Your task to perform on an android device: Clear the cart on newegg.com. Add logitech g933 to the cart on newegg.com Image 0: 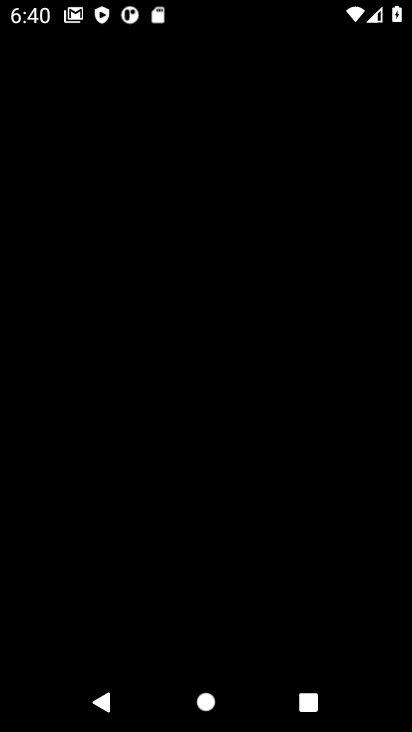
Step 0: press home button
Your task to perform on an android device: Clear the cart on newegg.com. Add logitech g933 to the cart on newegg.com Image 1: 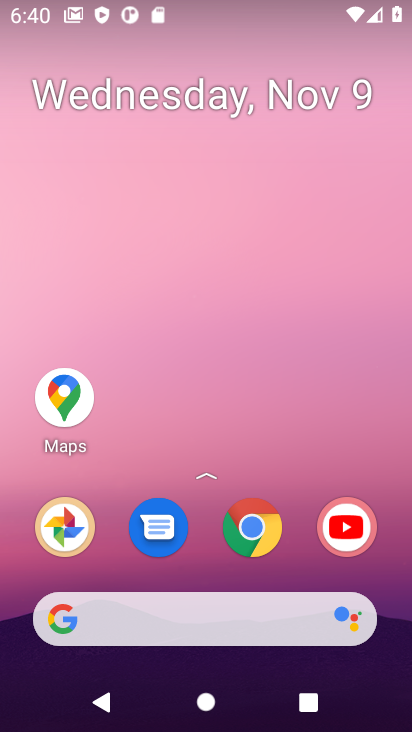
Step 1: click (260, 526)
Your task to perform on an android device: Clear the cart on newegg.com. Add logitech g933 to the cart on newegg.com Image 2: 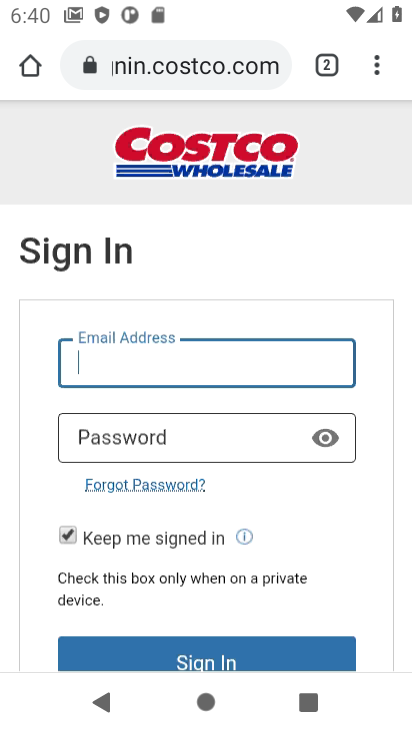
Step 2: click (211, 65)
Your task to perform on an android device: Clear the cart on newegg.com. Add logitech g933 to the cart on newegg.com Image 3: 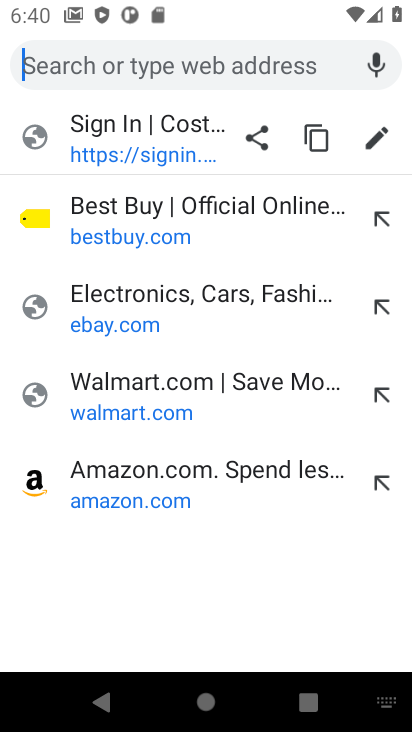
Step 3: type "newegg.com"
Your task to perform on an android device: Clear the cart on newegg.com. Add logitech g933 to the cart on newegg.com Image 4: 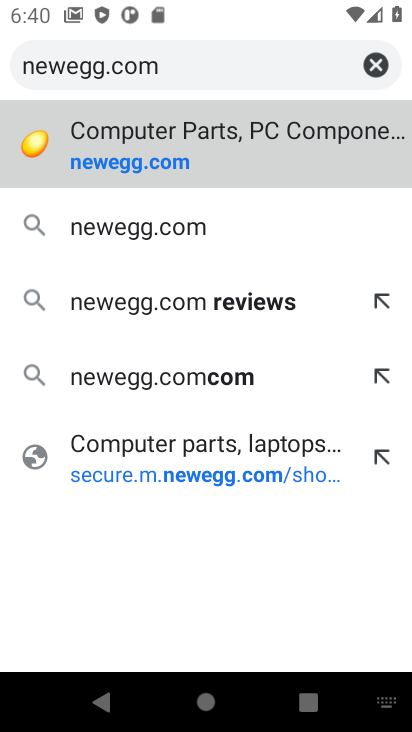
Step 4: click (181, 160)
Your task to perform on an android device: Clear the cart on newegg.com. Add logitech g933 to the cart on newegg.com Image 5: 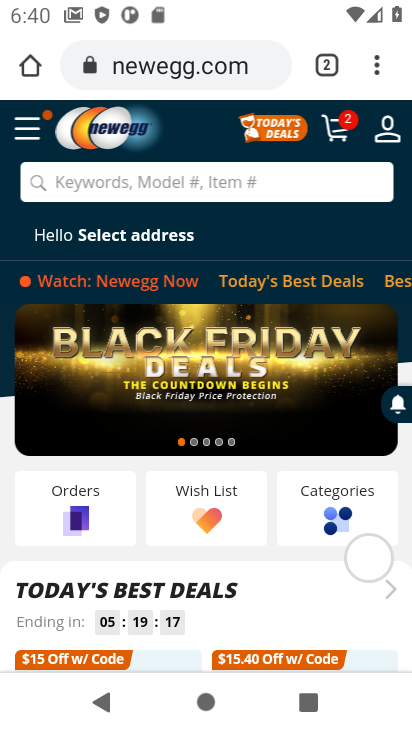
Step 5: click (348, 125)
Your task to perform on an android device: Clear the cart on newegg.com. Add logitech g933 to the cart on newegg.com Image 6: 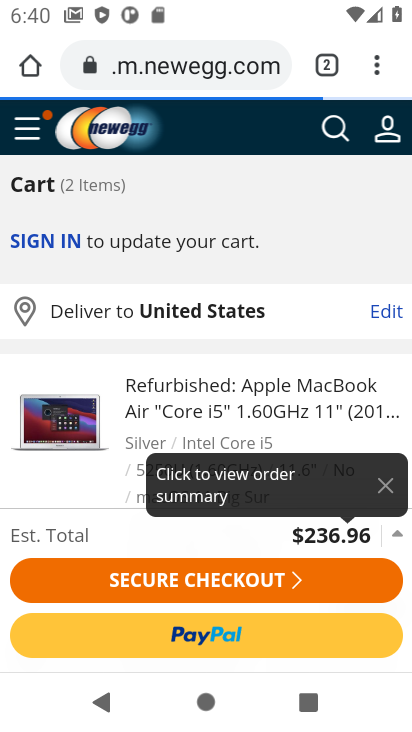
Step 6: drag from (221, 446) to (219, 292)
Your task to perform on an android device: Clear the cart on newegg.com. Add logitech g933 to the cart on newegg.com Image 7: 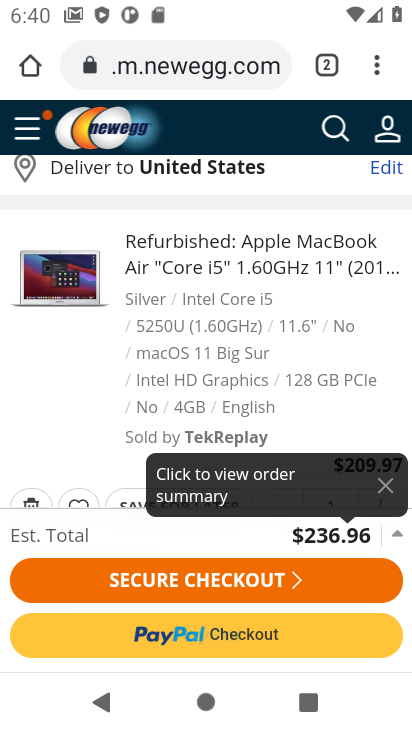
Step 7: drag from (49, 432) to (52, 309)
Your task to perform on an android device: Clear the cart on newegg.com. Add logitech g933 to the cart on newegg.com Image 8: 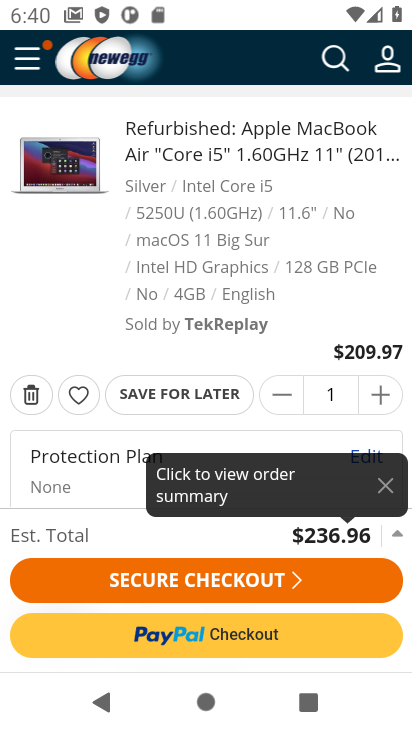
Step 8: click (25, 396)
Your task to perform on an android device: Clear the cart on newegg.com. Add logitech g933 to the cart on newegg.com Image 9: 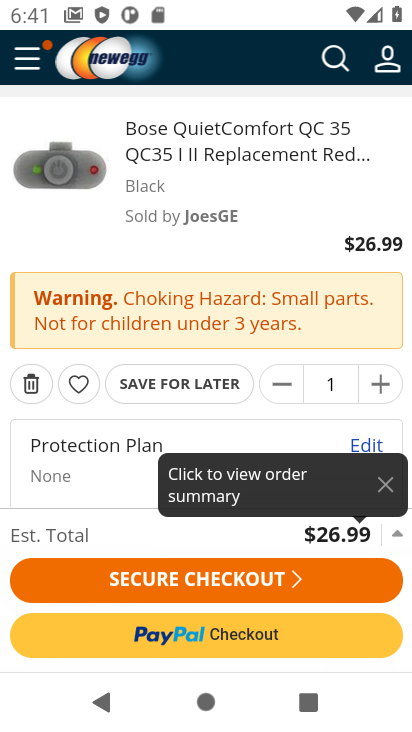
Step 9: click (31, 388)
Your task to perform on an android device: Clear the cart on newegg.com. Add logitech g933 to the cart on newegg.com Image 10: 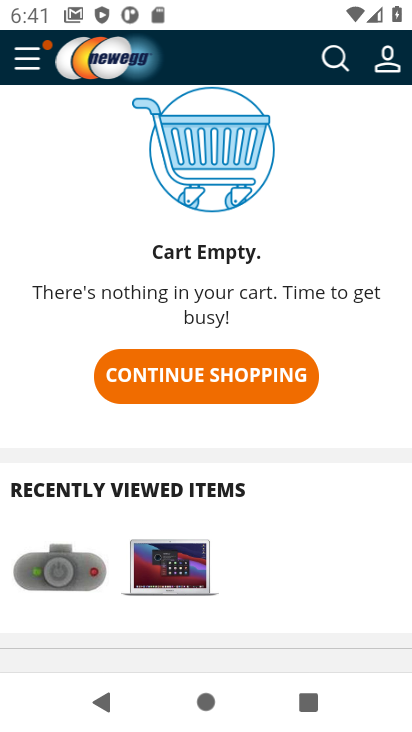
Step 10: click (324, 63)
Your task to perform on an android device: Clear the cart on newegg.com. Add logitech g933 to the cart on newegg.com Image 11: 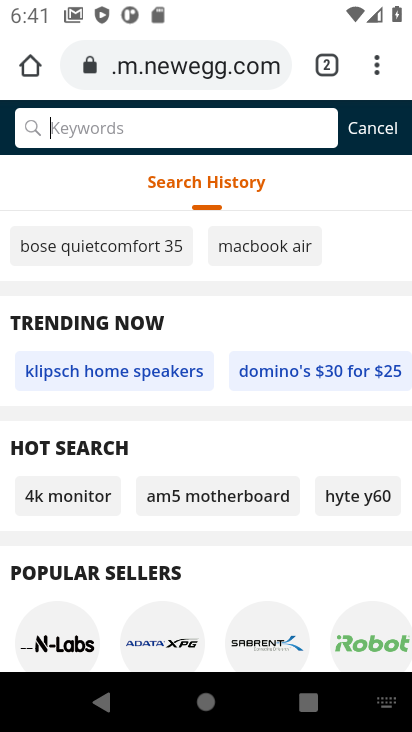
Step 11: type "logitech g933"
Your task to perform on an android device: Clear the cart on newegg.com. Add logitech g933 to the cart on newegg.com Image 12: 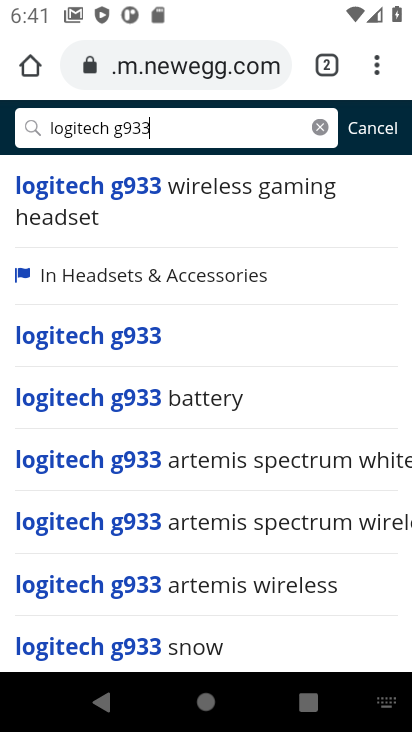
Step 12: click (113, 348)
Your task to perform on an android device: Clear the cart on newegg.com. Add logitech g933 to the cart on newegg.com Image 13: 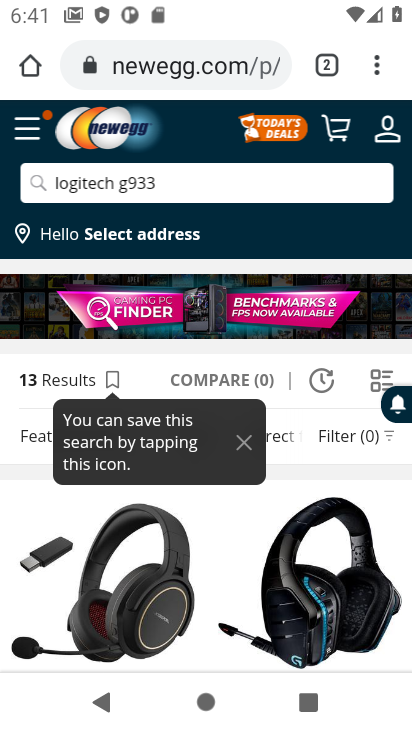
Step 13: drag from (208, 545) to (215, 288)
Your task to perform on an android device: Clear the cart on newegg.com. Add logitech g933 to the cart on newegg.com Image 14: 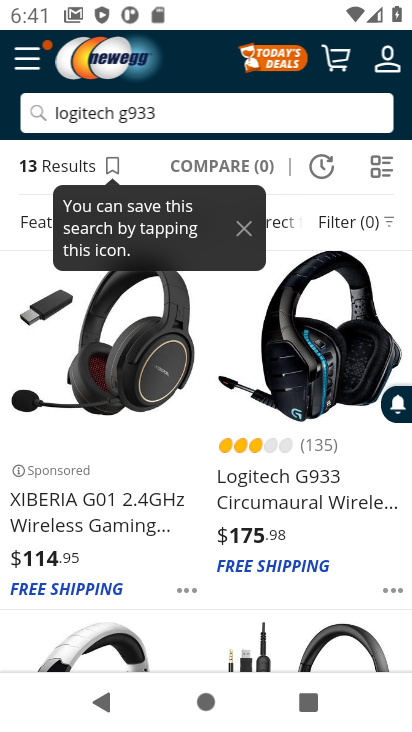
Step 14: click (291, 474)
Your task to perform on an android device: Clear the cart on newegg.com. Add logitech g933 to the cart on newegg.com Image 15: 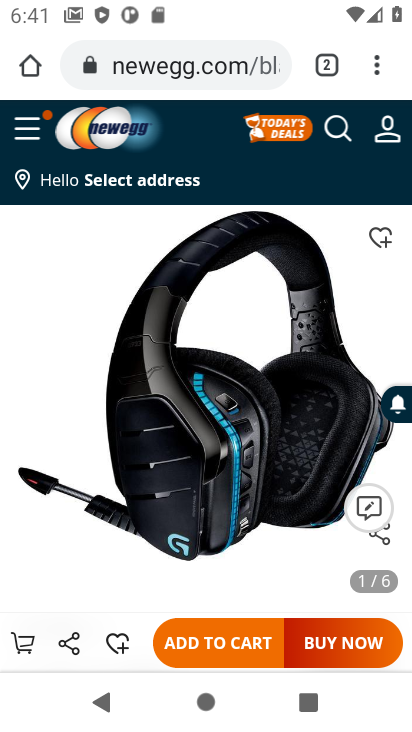
Step 15: click (211, 651)
Your task to perform on an android device: Clear the cart on newegg.com. Add logitech g933 to the cart on newegg.com Image 16: 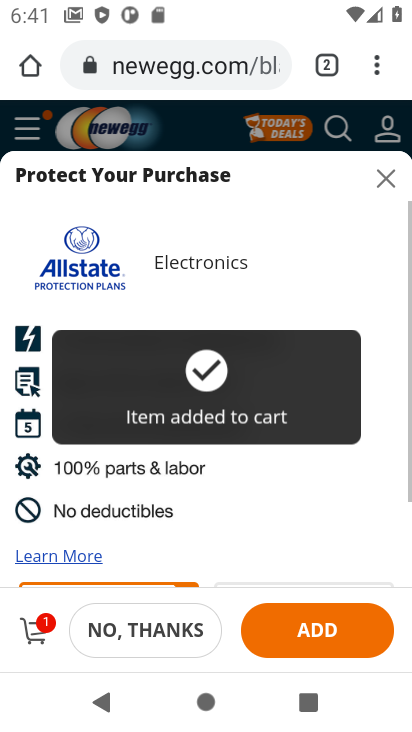
Step 16: task complete